Your task to perform on an android device: When is my next meeting? Image 0: 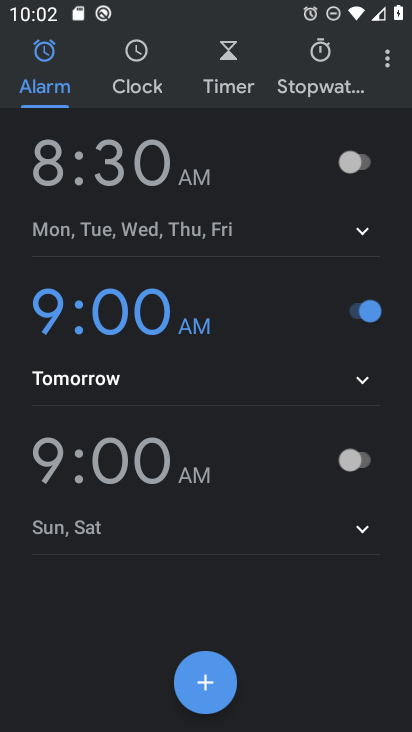
Step 0: press home button
Your task to perform on an android device: When is my next meeting? Image 1: 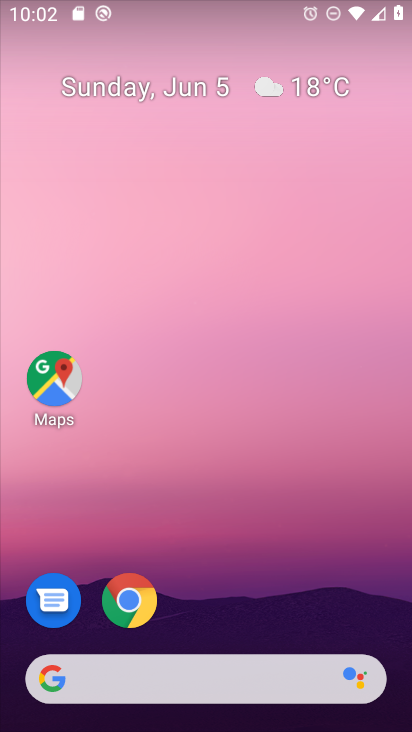
Step 1: drag from (219, 488) to (193, 130)
Your task to perform on an android device: When is my next meeting? Image 2: 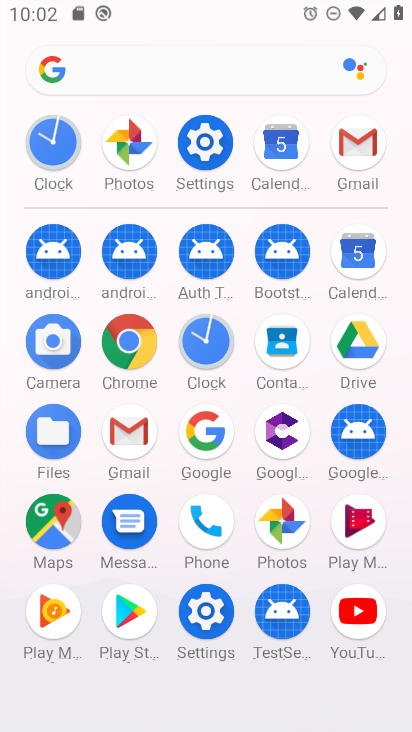
Step 2: click (360, 254)
Your task to perform on an android device: When is my next meeting? Image 3: 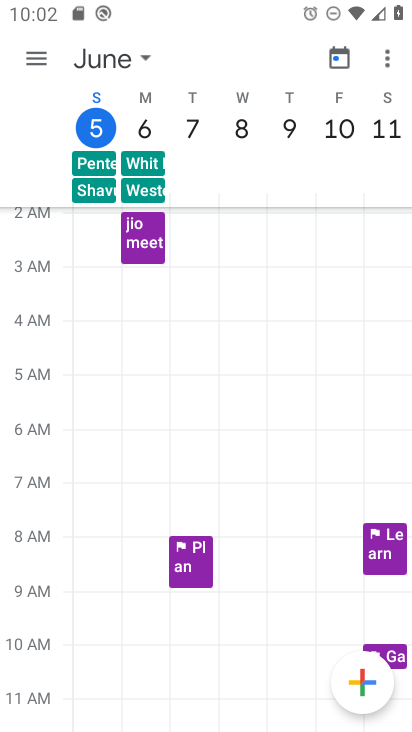
Step 3: click (88, 127)
Your task to perform on an android device: When is my next meeting? Image 4: 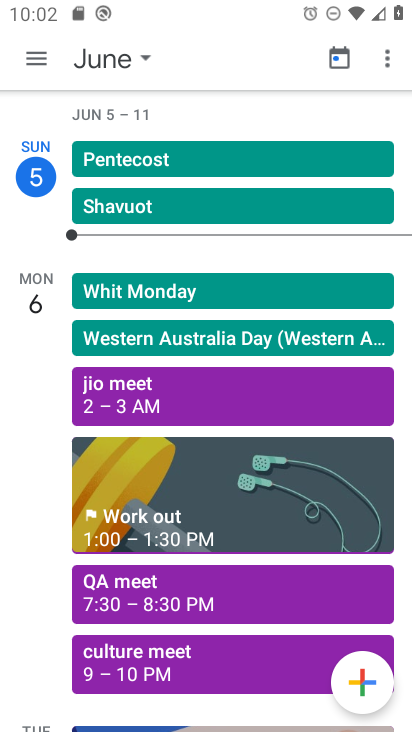
Step 4: task complete